Your task to perform on an android device: open app "McDonald's" (install if not already installed) and enter user name: "copes@yahoo.com" and password: "Rhenish" Image 0: 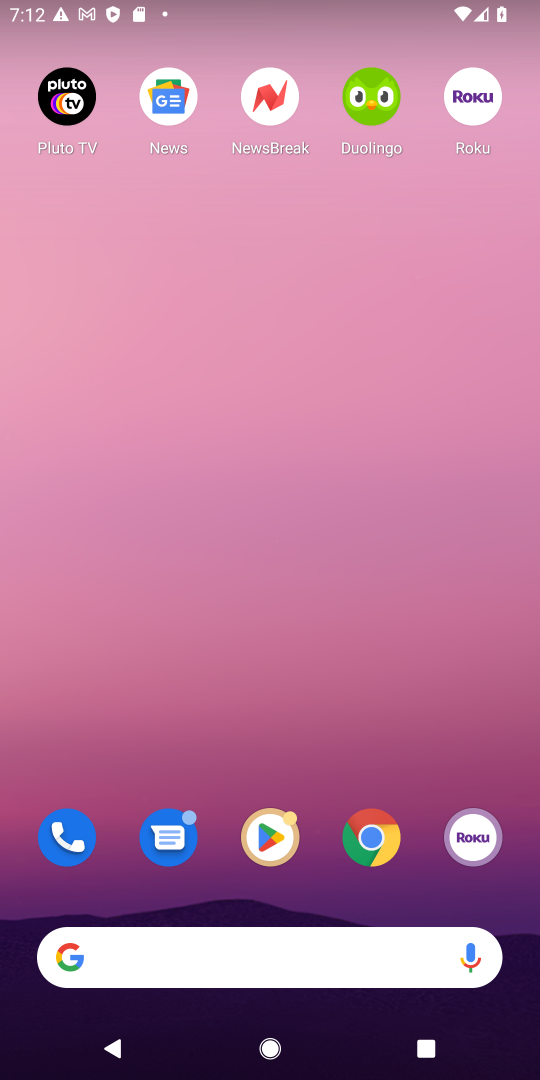
Step 0: drag from (221, 880) to (245, 82)
Your task to perform on an android device: open app "McDonald's" (install if not already installed) and enter user name: "copes@yahoo.com" and password: "Rhenish" Image 1: 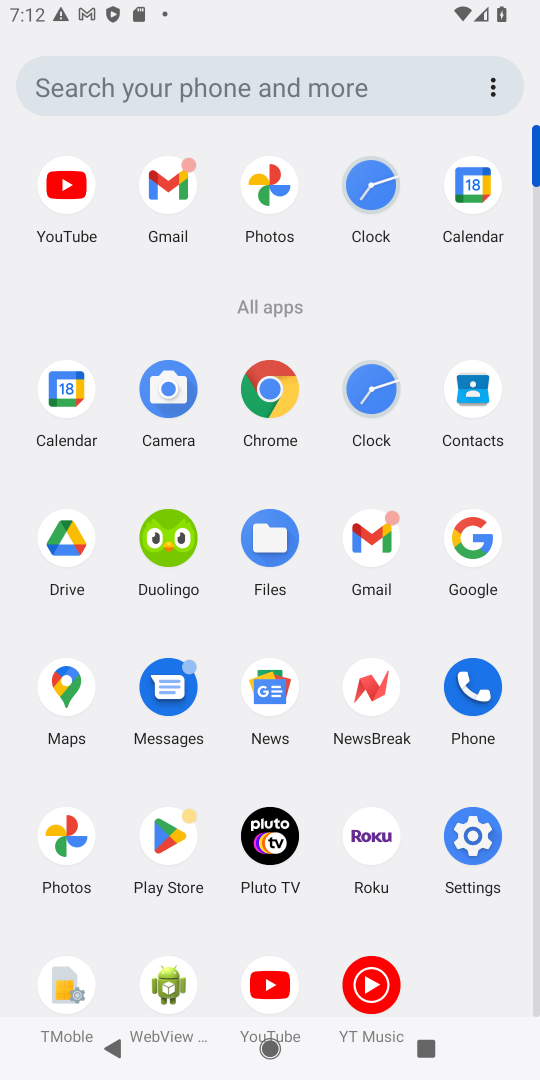
Step 1: click (161, 864)
Your task to perform on an android device: open app "McDonald's" (install if not already installed) and enter user name: "copes@yahoo.com" and password: "Rhenish" Image 2: 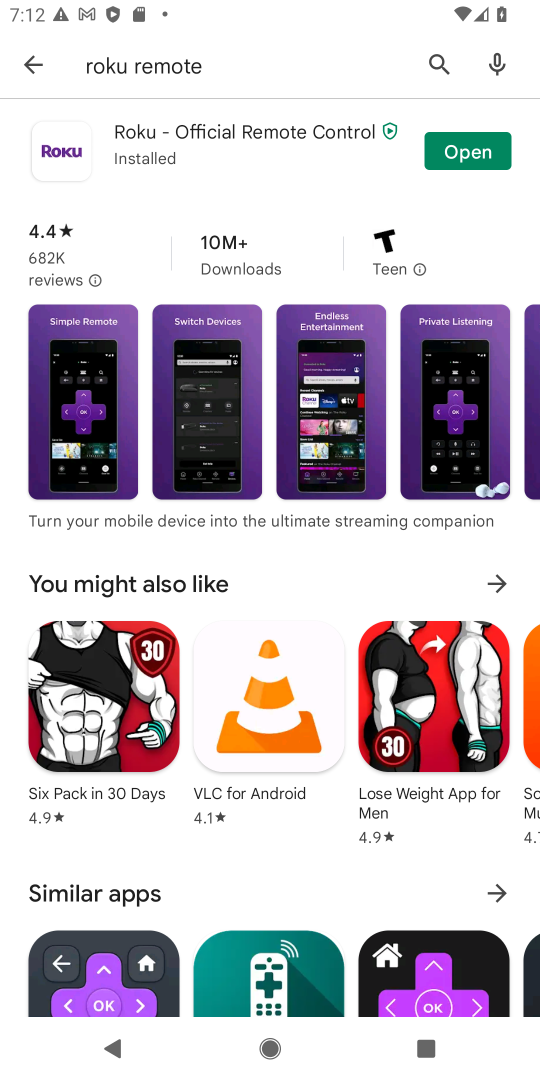
Step 2: click (227, 71)
Your task to perform on an android device: open app "McDonald's" (install if not already installed) and enter user name: "copes@yahoo.com" and password: "Rhenish" Image 3: 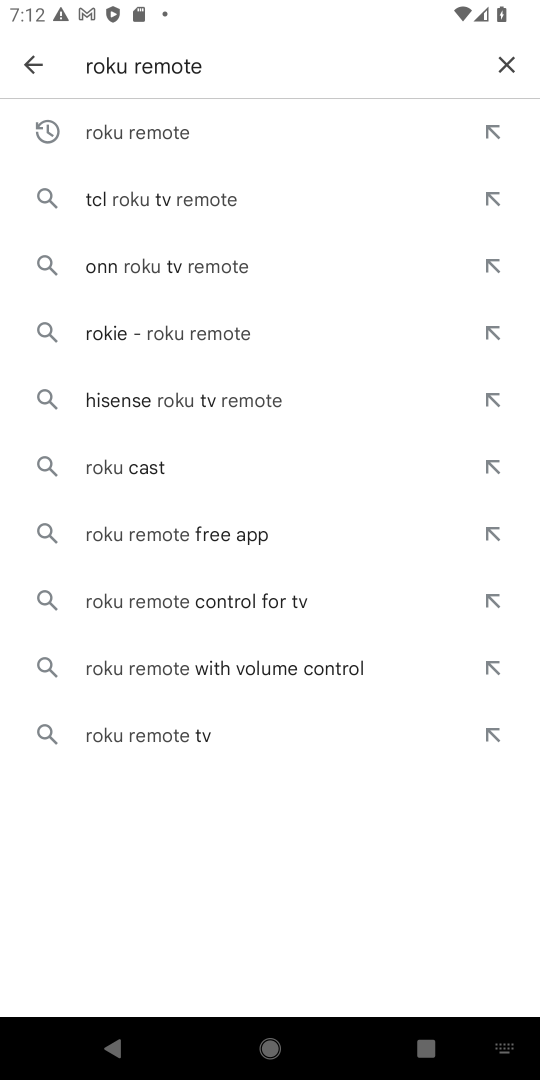
Step 3: click (508, 63)
Your task to perform on an android device: open app "McDonald's" (install if not already installed) and enter user name: "copes@yahoo.com" and password: "Rhenish" Image 4: 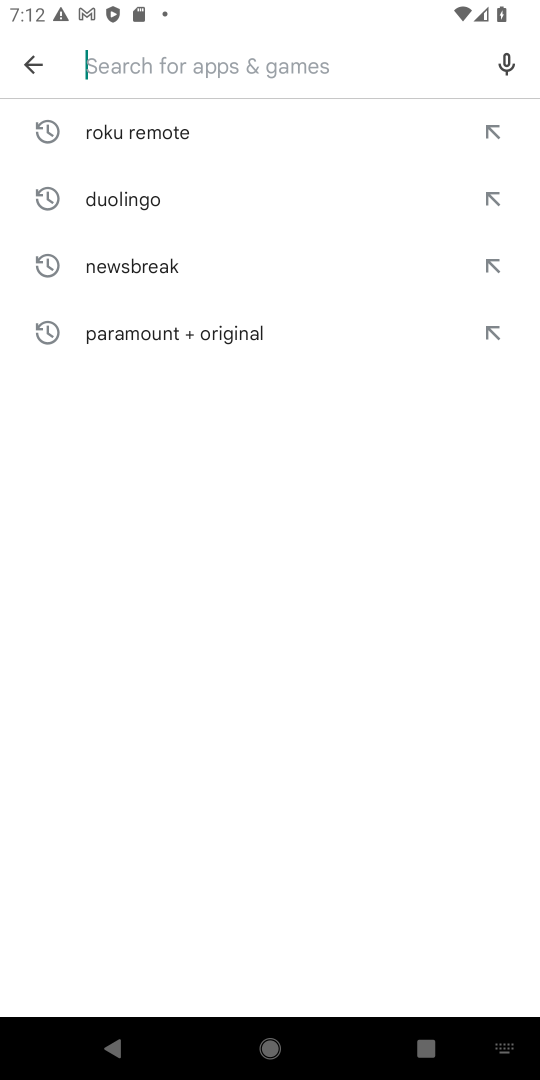
Step 4: type "McDonalds"
Your task to perform on an android device: open app "McDonald's" (install if not already installed) and enter user name: "copes@yahoo.com" and password: "Rhenish" Image 5: 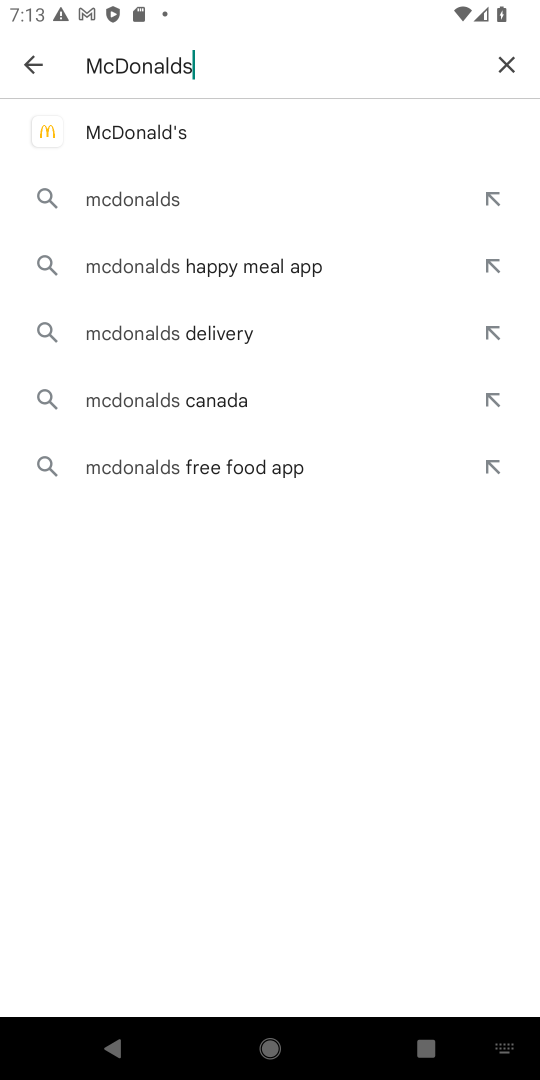
Step 5: click (176, 134)
Your task to perform on an android device: open app "McDonald's" (install if not already installed) and enter user name: "copes@yahoo.com" and password: "Rhenish" Image 6: 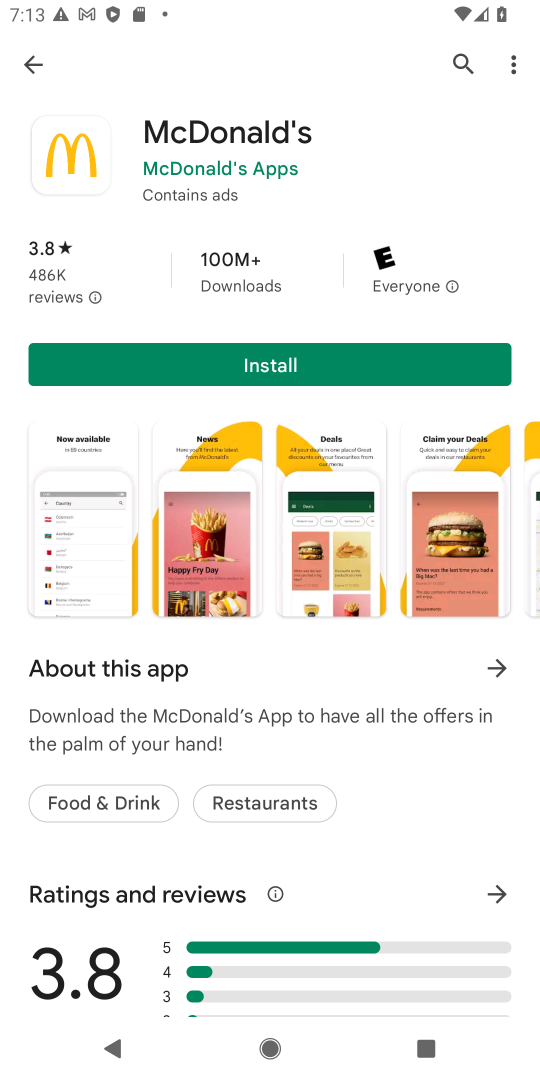
Step 6: click (236, 362)
Your task to perform on an android device: open app "McDonald's" (install if not already installed) and enter user name: "copes@yahoo.com" and password: "Rhenish" Image 7: 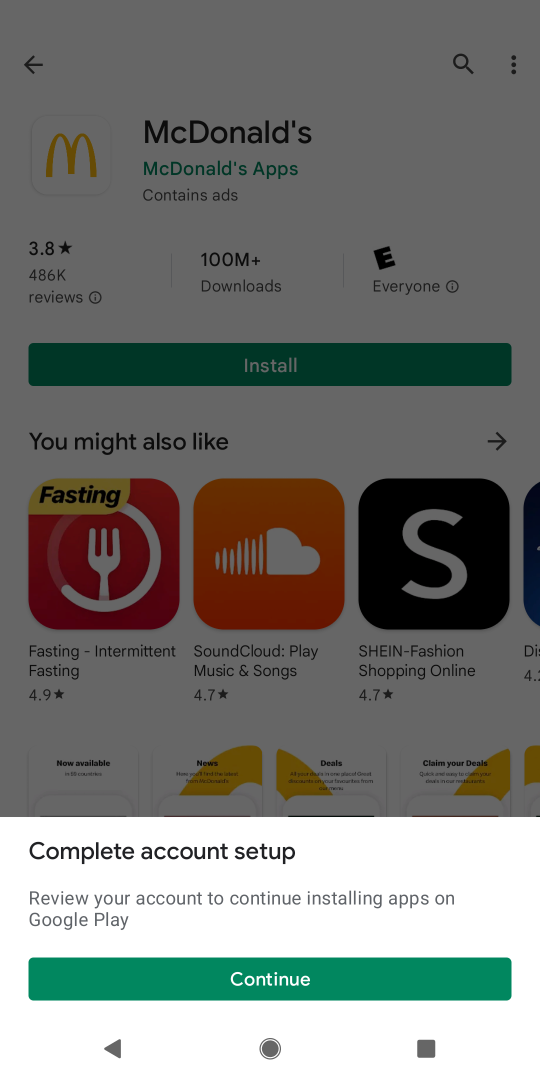
Step 7: click (205, 974)
Your task to perform on an android device: open app "McDonald's" (install if not already installed) and enter user name: "copes@yahoo.com" and password: "Rhenish" Image 8: 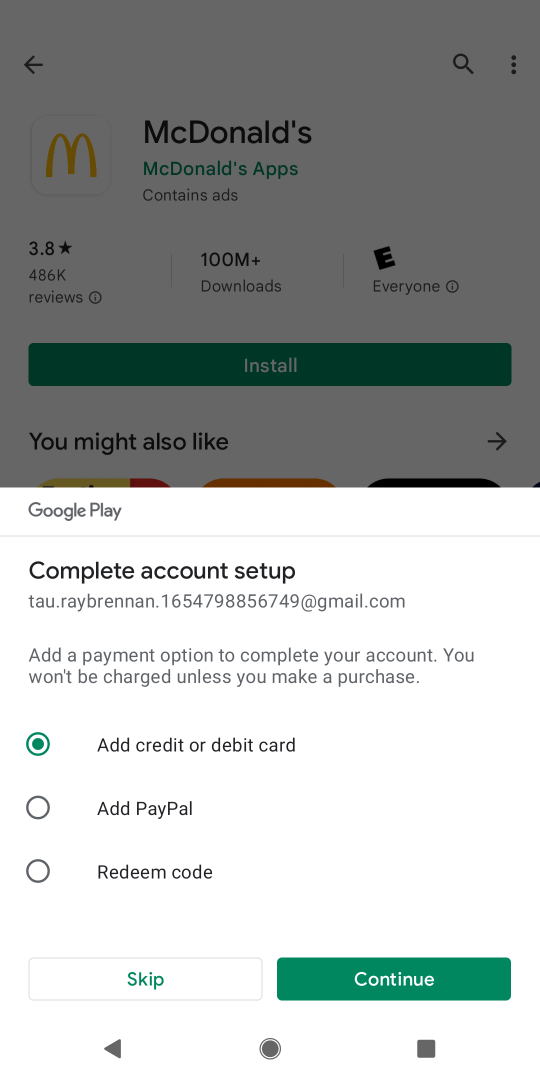
Step 8: click (153, 971)
Your task to perform on an android device: open app "McDonald's" (install if not already installed) and enter user name: "copes@yahoo.com" and password: "Rhenish" Image 9: 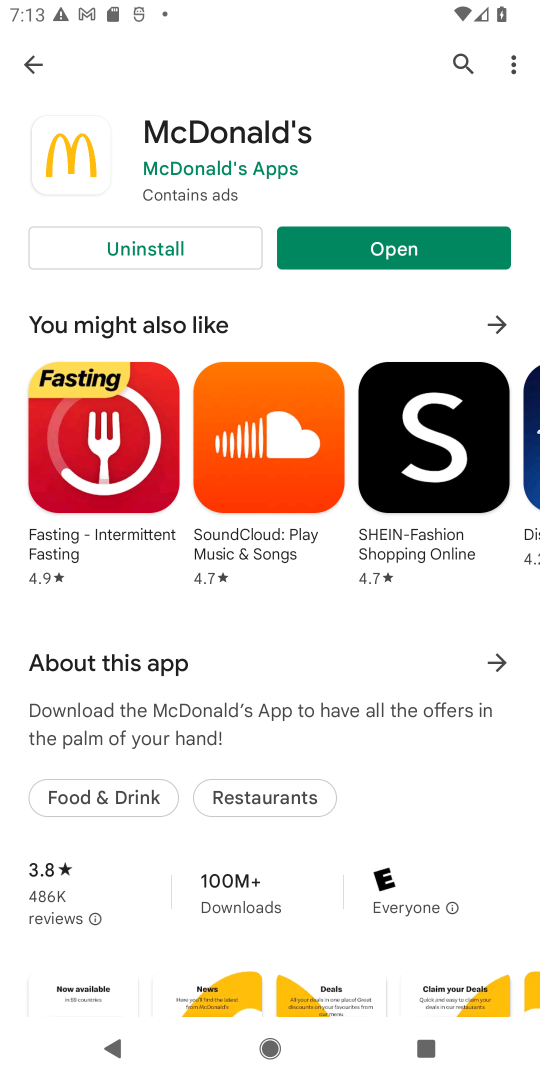
Step 9: click (380, 244)
Your task to perform on an android device: open app "McDonald's" (install if not already installed) and enter user name: "copes@yahoo.com" and password: "Rhenish" Image 10: 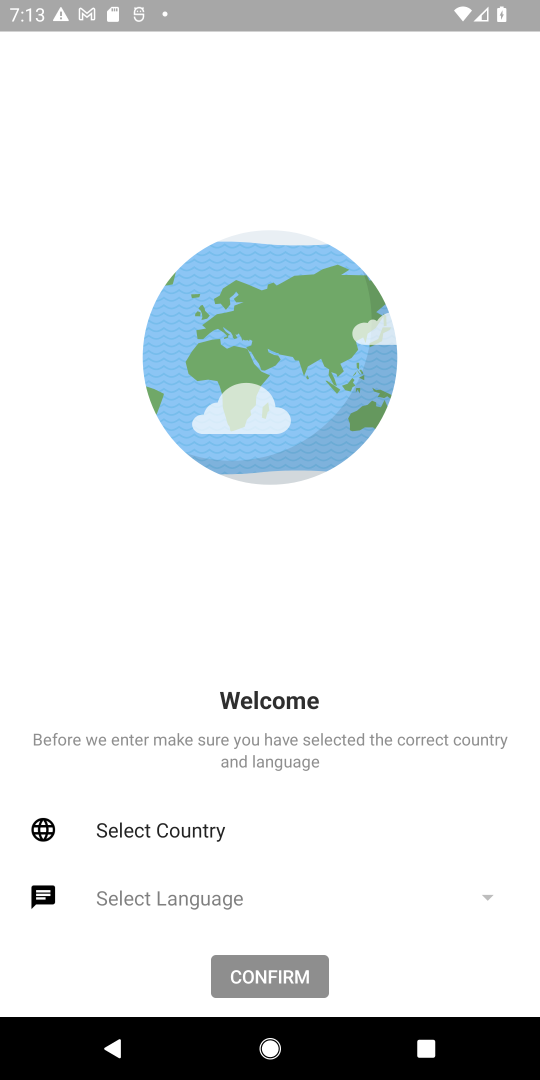
Step 10: click (272, 961)
Your task to perform on an android device: open app "McDonald's" (install if not already installed) and enter user name: "copes@yahoo.com" and password: "Rhenish" Image 11: 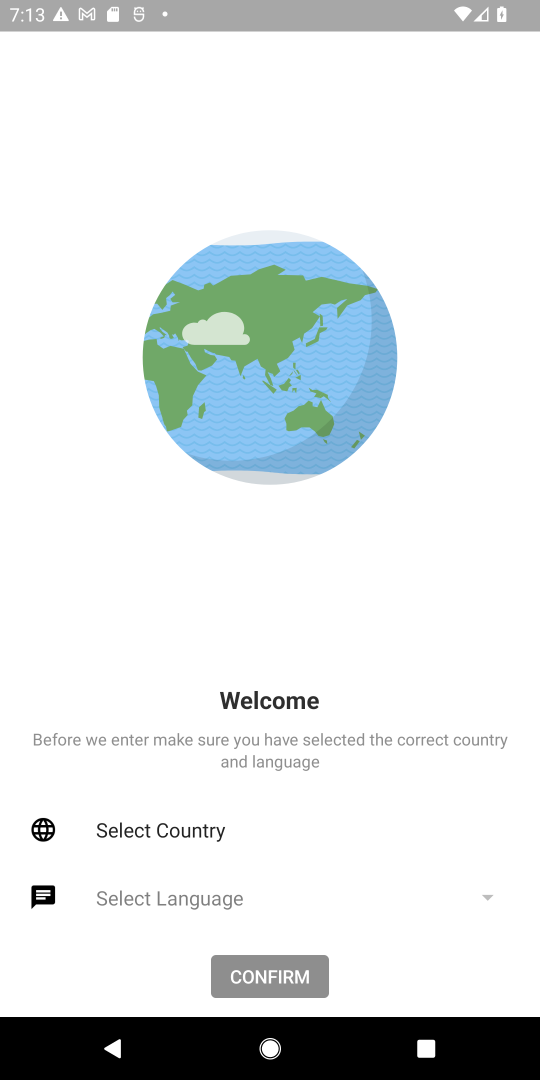
Step 11: task complete